Your task to perform on an android device: Go to Yahoo.com Image 0: 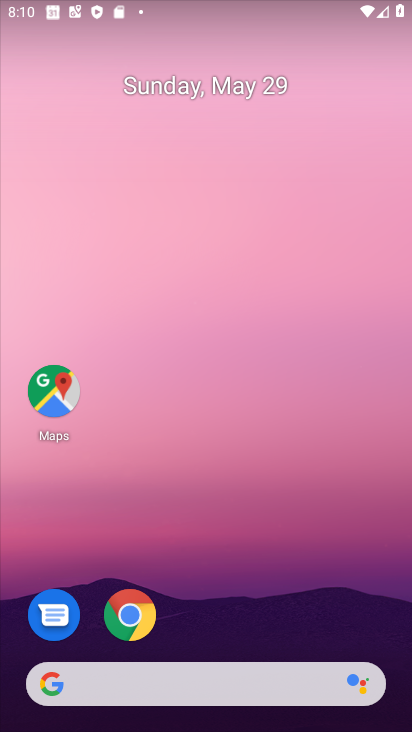
Step 0: click (209, 691)
Your task to perform on an android device: Go to Yahoo.com Image 1: 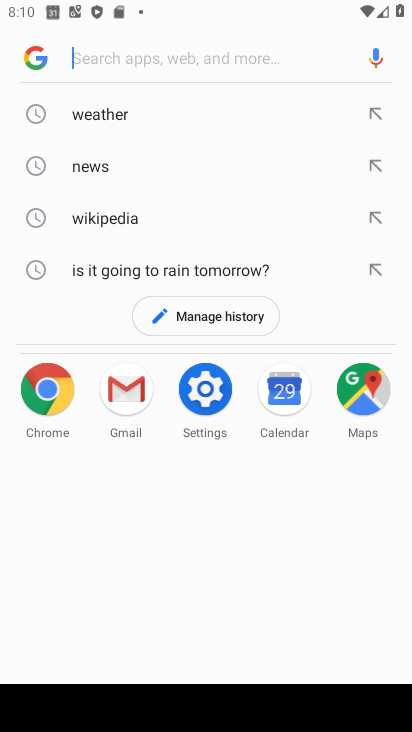
Step 1: click (173, 56)
Your task to perform on an android device: Go to Yahoo.com Image 2: 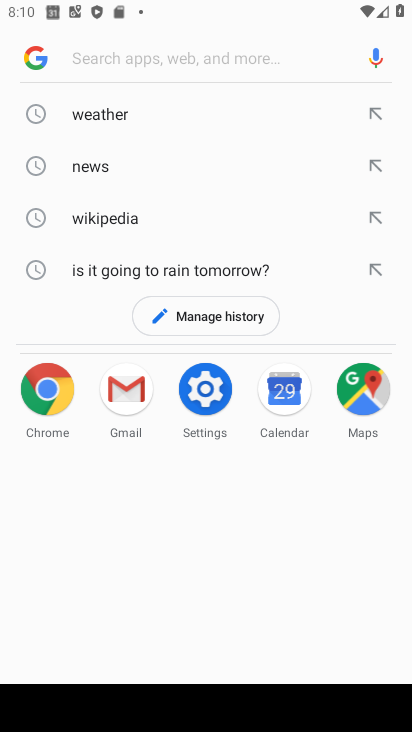
Step 2: click (130, 58)
Your task to perform on an android device: Go to Yahoo.com Image 3: 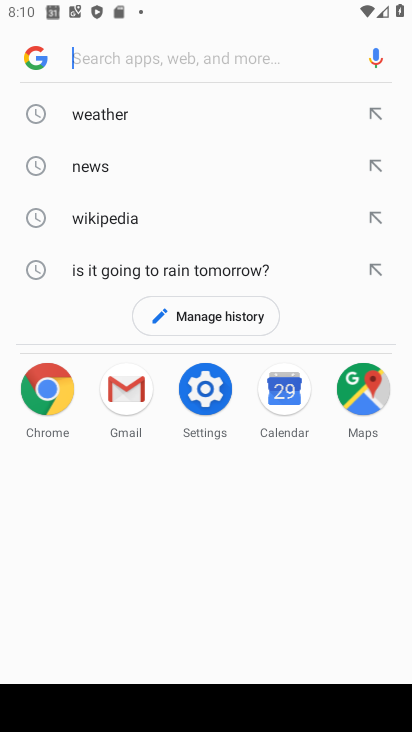
Step 3: type "Yahoo.com"
Your task to perform on an android device: Go to Yahoo.com Image 4: 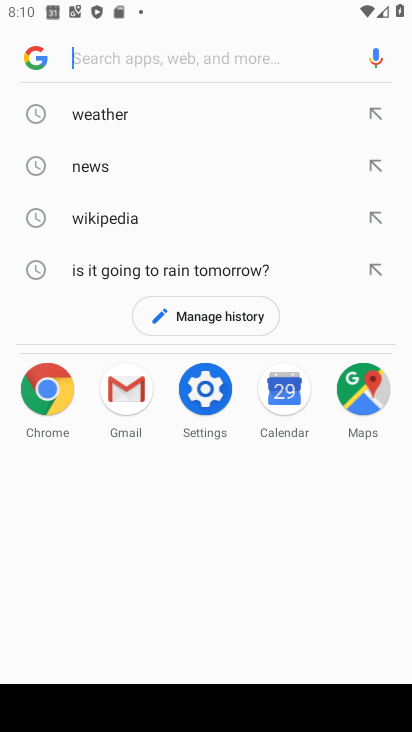
Step 4: click (229, 60)
Your task to perform on an android device: Go to Yahoo.com Image 5: 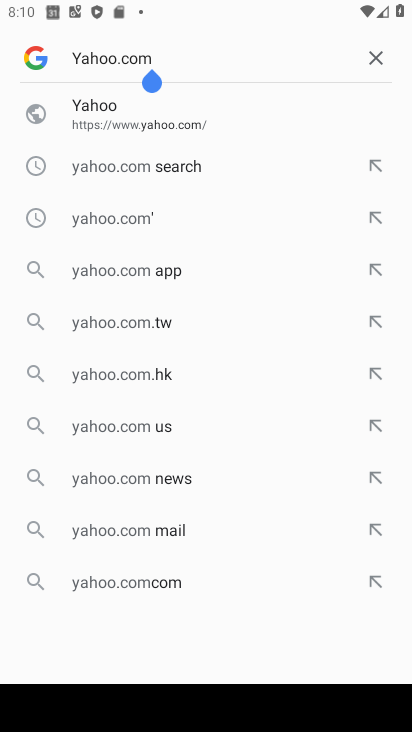
Step 5: click (104, 111)
Your task to perform on an android device: Go to Yahoo.com Image 6: 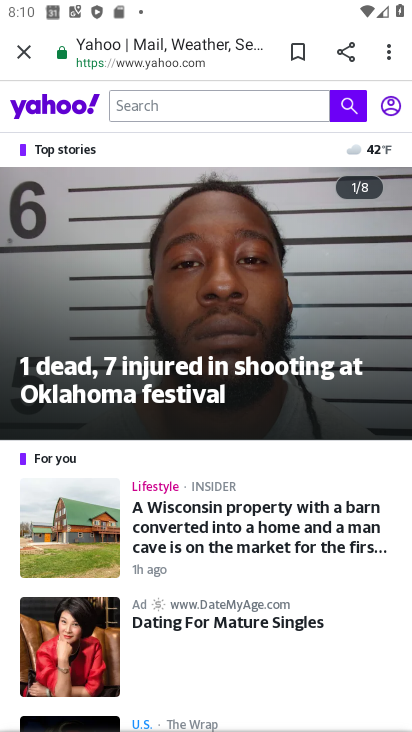
Step 6: task complete